Your task to perform on an android device: check out phone information Image 0: 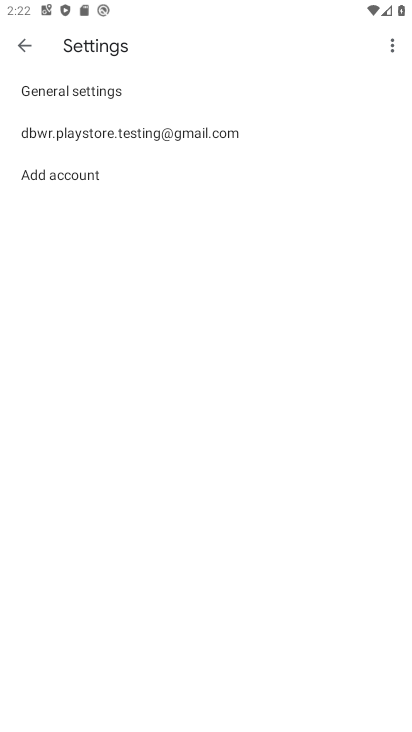
Step 0: press back button
Your task to perform on an android device: check out phone information Image 1: 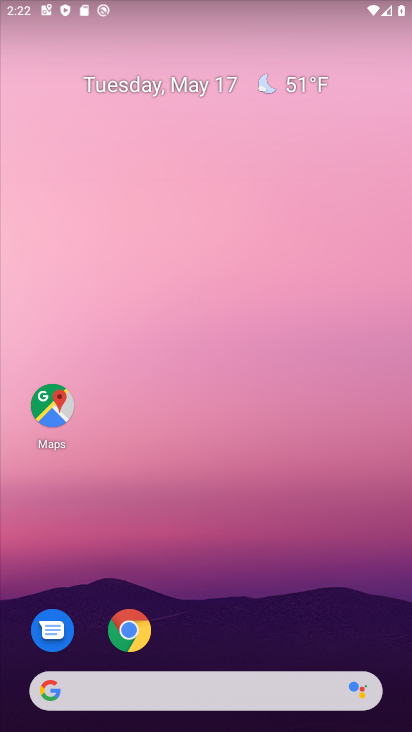
Step 1: drag from (249, 648) to (311, 126)
Your task to perform on an android device: check out phone information Image 2: 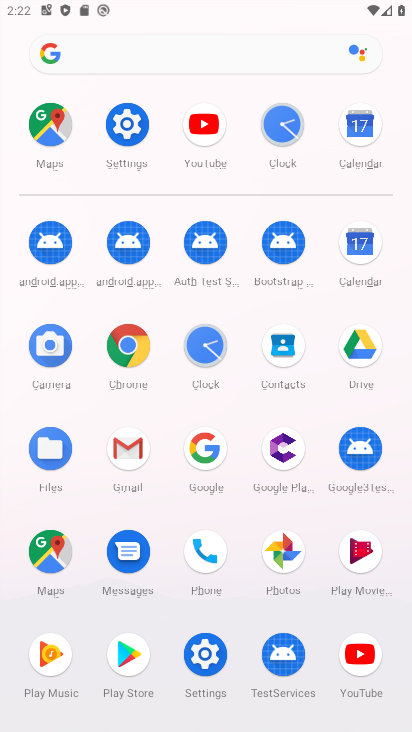
Step 2: click (127, 132)
Your task to perform on an android device: check out phone information Image 3: 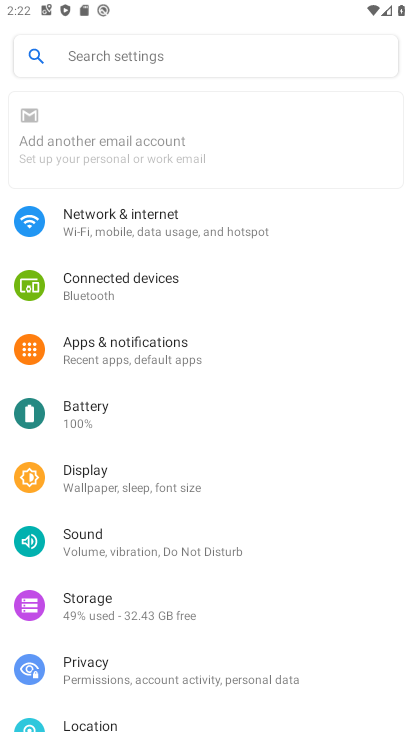
Step 3: drag from (138, 649) to (231, 88)
Your task to perform on an android device: check out phone information Image 4: 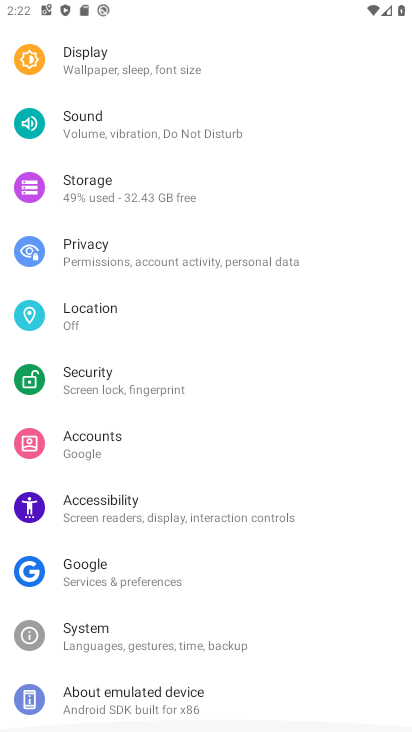
Step 4: drag from (113, 670) to (264, 52)
Your task to perform on an android device: check out phone information Image 5: 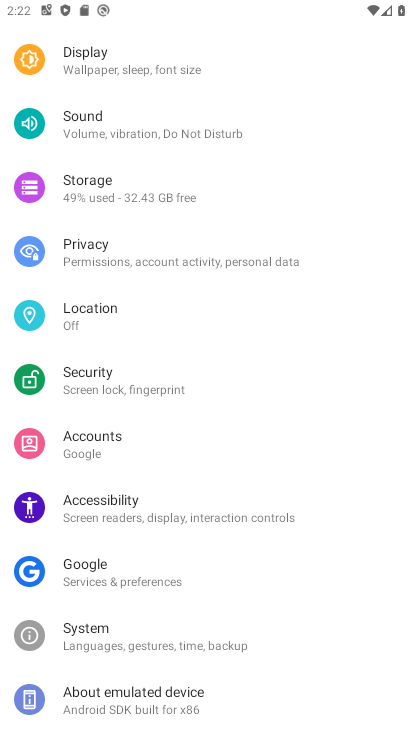
Step 5: click (135, 688)
Your task to perform on an android device: check out phone information Image 6: 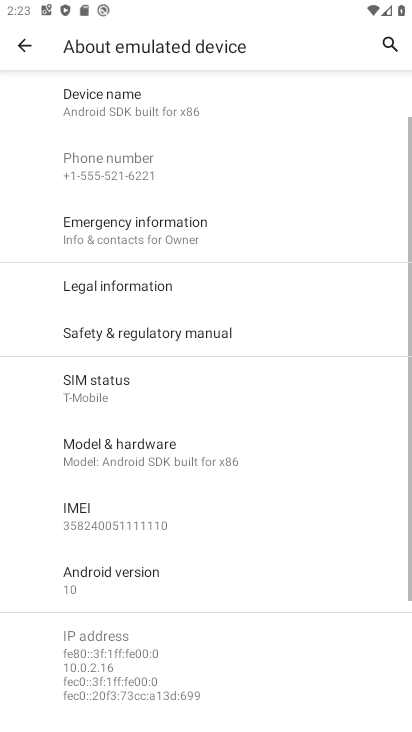
Step 6: task complete